Your task to perform on an android device: turn on airplane mode Image 0: 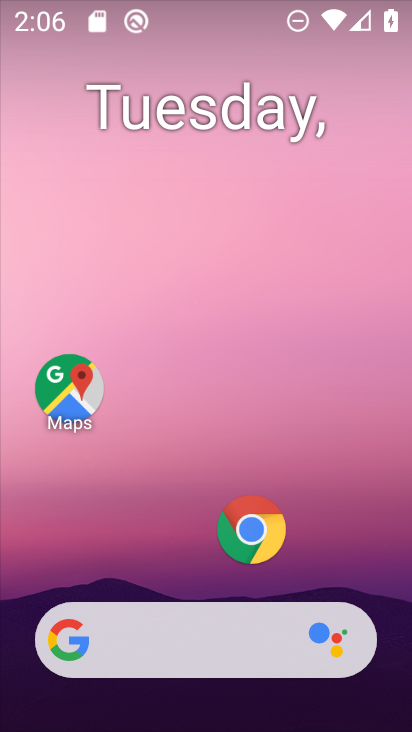
Step 0: drag from (223, 624) to (272, 2)
Your task to perform on an android device: turn on airplane mode Image 1: 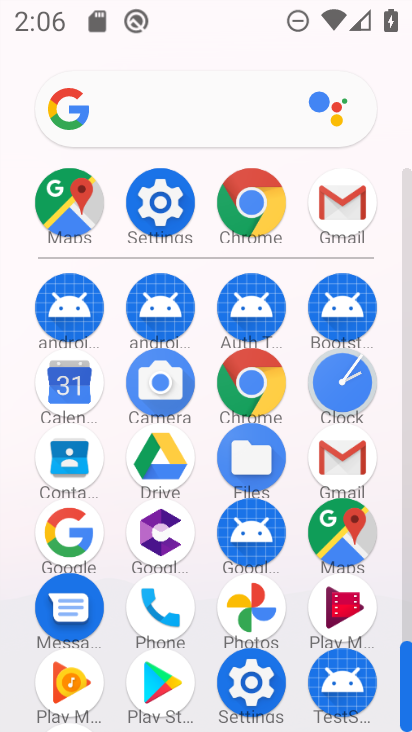
Step 1: click (165, 217)
Your task to perform on an android device: turn on airplane mode Image 2: 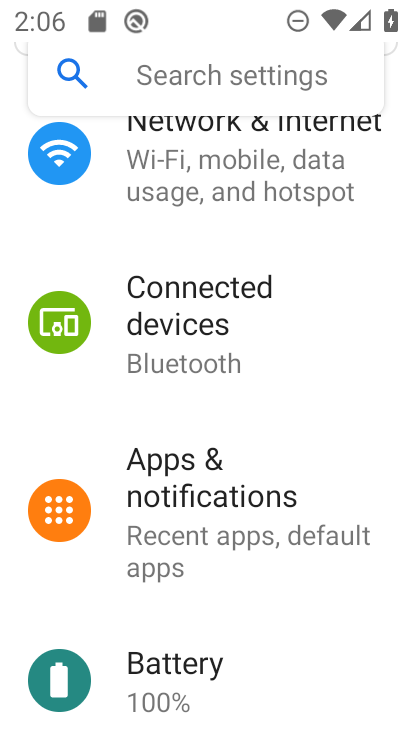
Step 2: click (193, 170)
Your task to perform on an android device: turn on airplane mode Image 3: 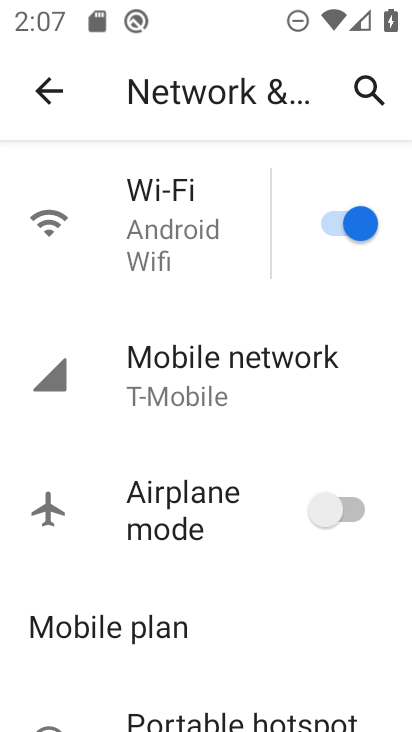
Step 3: click (352, 510)
Your task to perform on an android device: turn on airplane mode Image 4: 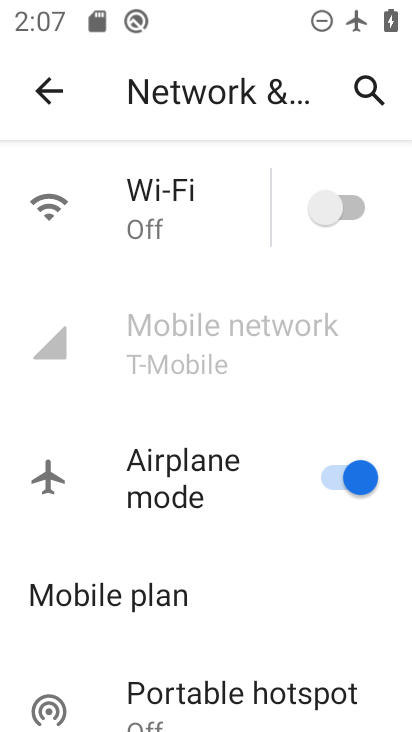
Step 4: task complete